Your task to perform on an android device: toggle translation in the chrome app Image 0: 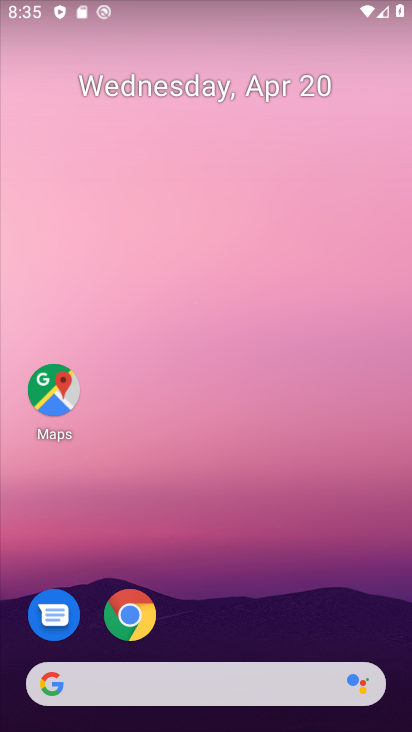
Step 0: click (142, 620)
Your task to perform on an android device: toggle translation in the chrome app Image 1: 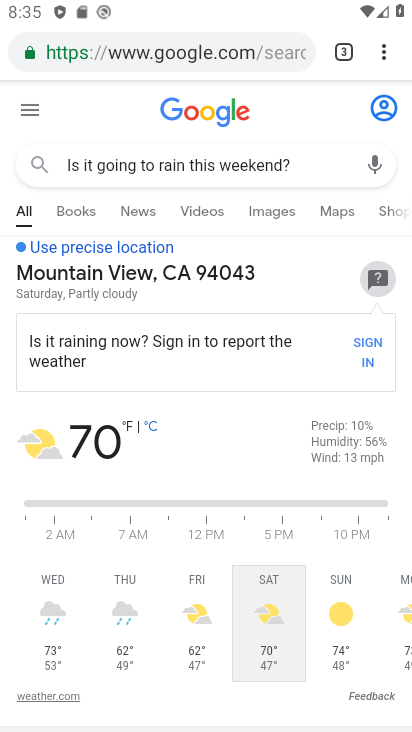
Step 1: click (389, 49)
Your task to perform on an android device: toggle translation in the chrome app Image 2: 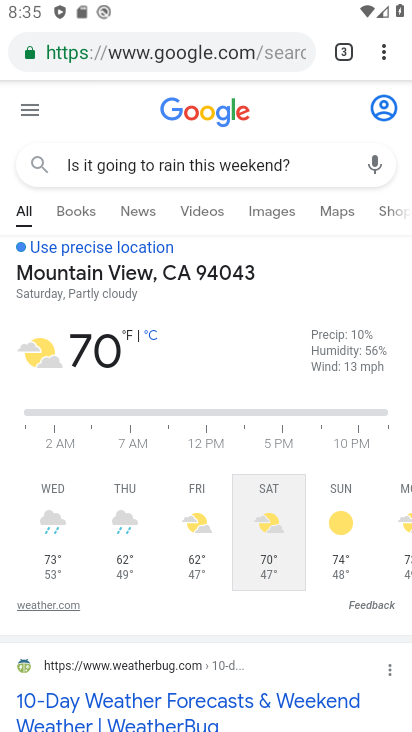
Step 2: click (381, 50)
Your task to perform on an android device: toggle translation in the chrome app Image 3: 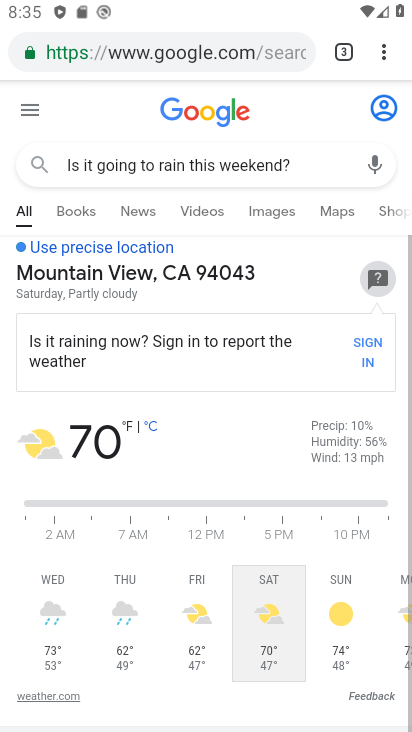
Step 3: click (381, 49)
Your task to perform on an android device: toggle translation in the chrome app Image 4: 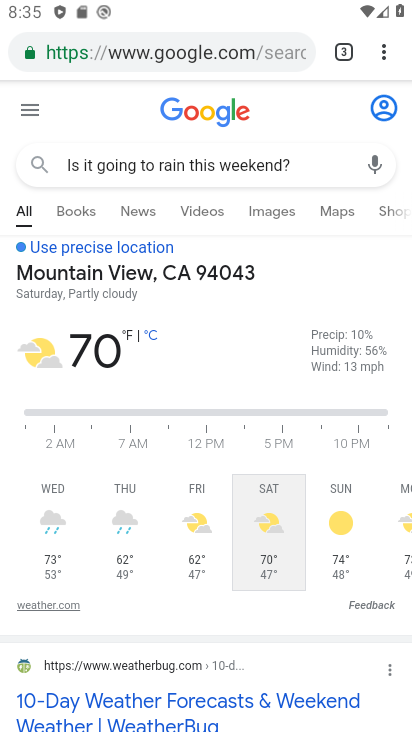
Step 4: click (381, 49)
Your task to perform on an android device: toggle translation in the chrome app Image 5: 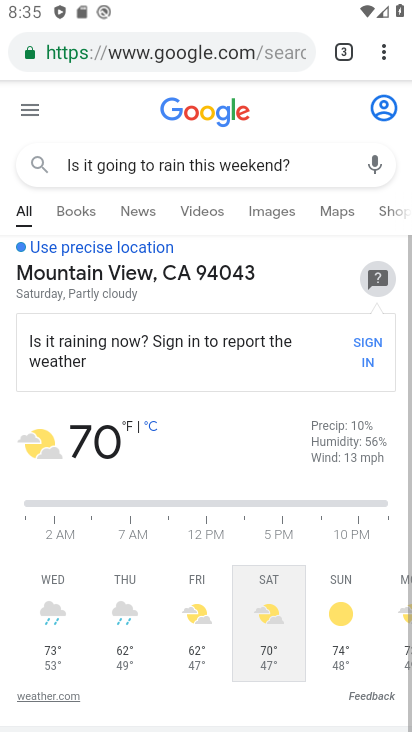
Step 5: click (381, 49)
Your task to perform on an android device: toggle translation in the chrome app Image 6: 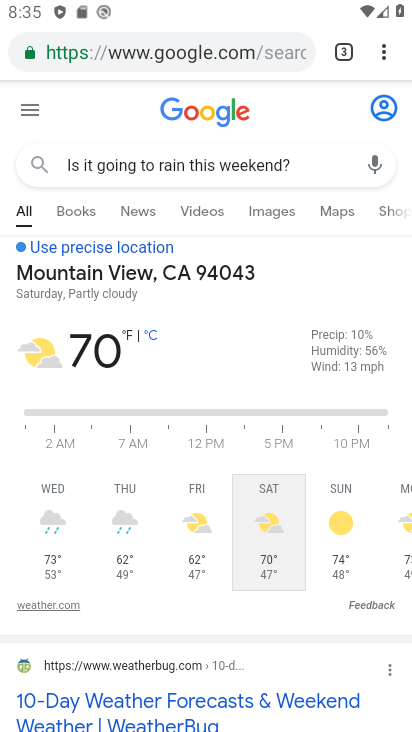
Step 6: click (388, 50)
Your task to perform on an android device: toggle translation in the chrome app Image 7: 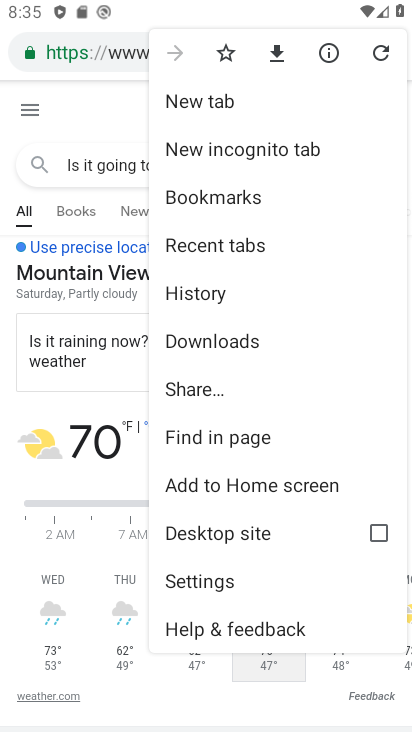
Step 7: click (214, 587)
Your task to perform on an android device: toggle translation in the chrome app Image 8: 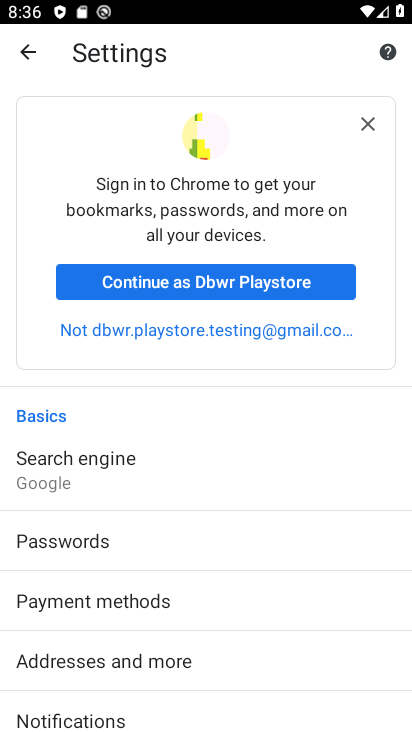
Step 8: drag from (240, 685) to (303, 403)
Your task to perform on an android device: toggle translation in the chrome app Image 9: 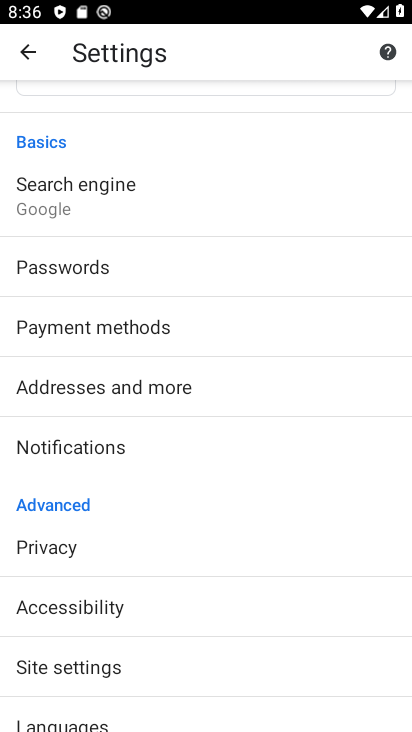
Step 9: drag from (89, 704) to (162, 478)
Your task to perform on an android device: toggle translation in the chrome app Image 10: 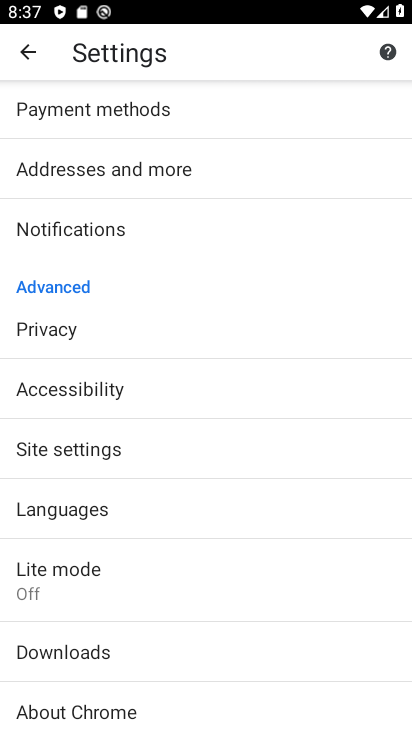
Step 10: click (117, 506)
Your task to perform on an android device: toggle translation in the chrome app Image 11: 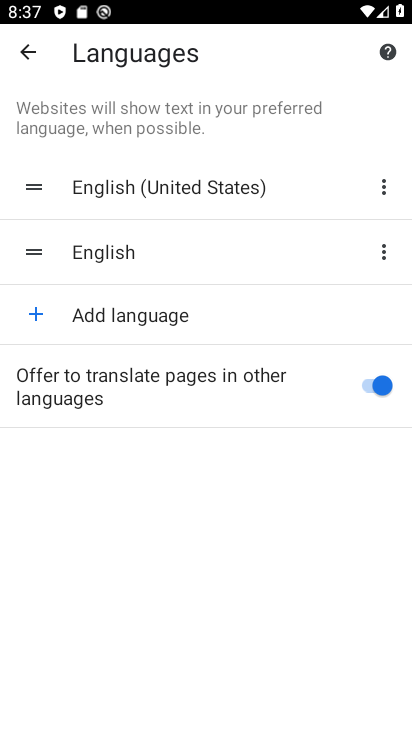
Step 11: click (388, 385)
Your task to perform on an android device: toggle translation in the chrome app Image 12: 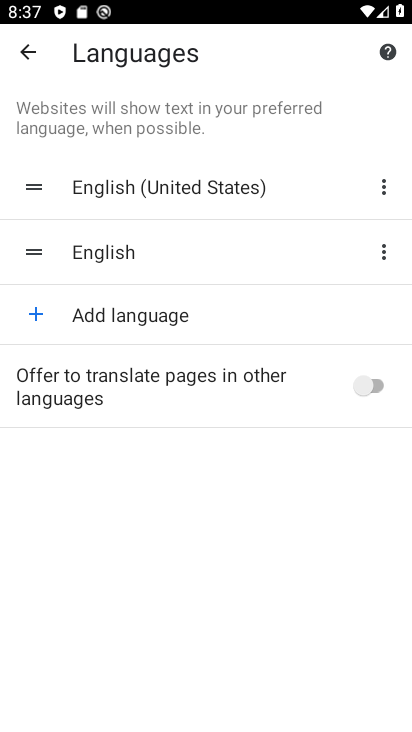
Step 12: task complete